Your task to perform on an android device: Open CNN.com Image 0: 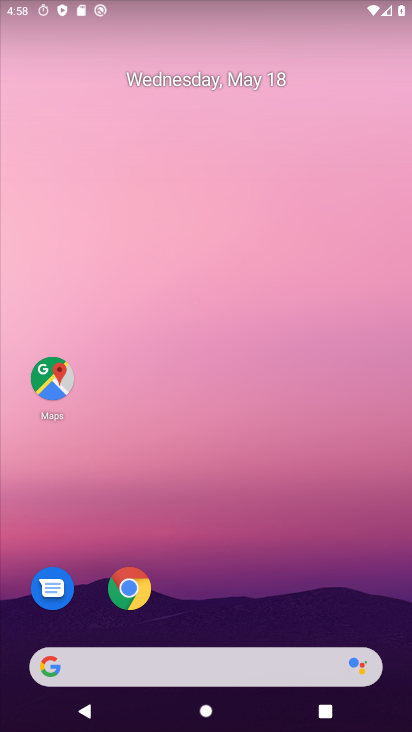
Step 0: click (113, 584)
Your task to perform on an android device: Open CNN.com Image 1: 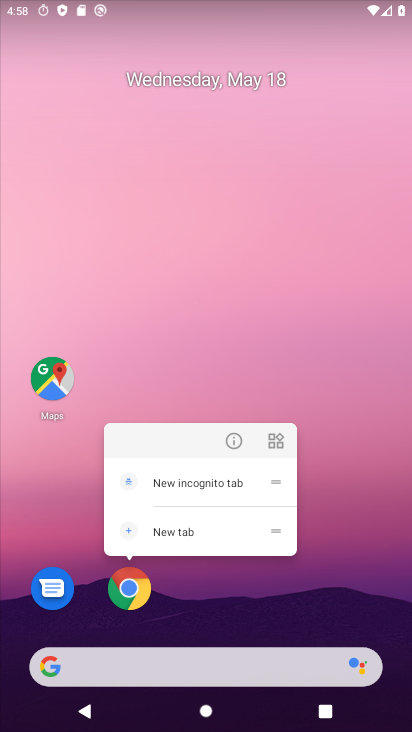
Step 1: click (136, 584)
Your task to perform on an android device: Open CNN.com Image 2: 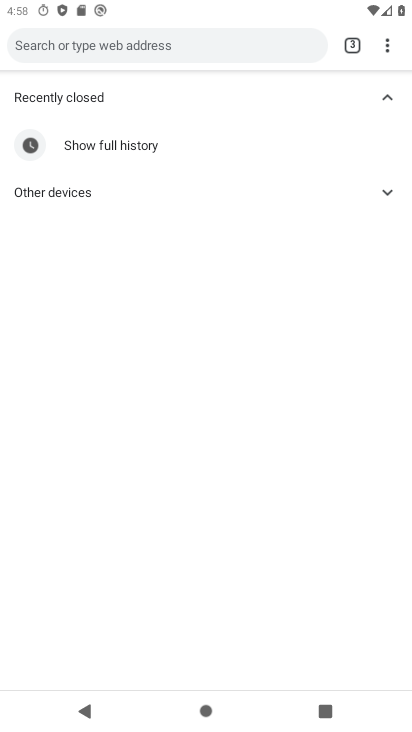
Step 2: click (153, 45)
Your task to perform on an android device: Open CNN.com Image 3: 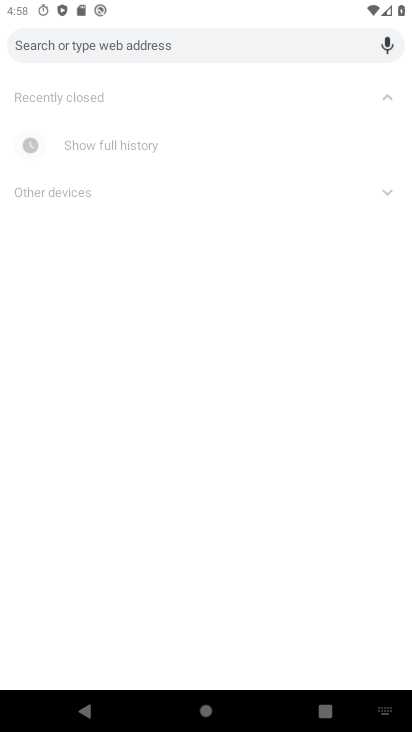
Step 3: type " CNN.com"
Your task to perform on an android device: Open CNN.com Image 4: 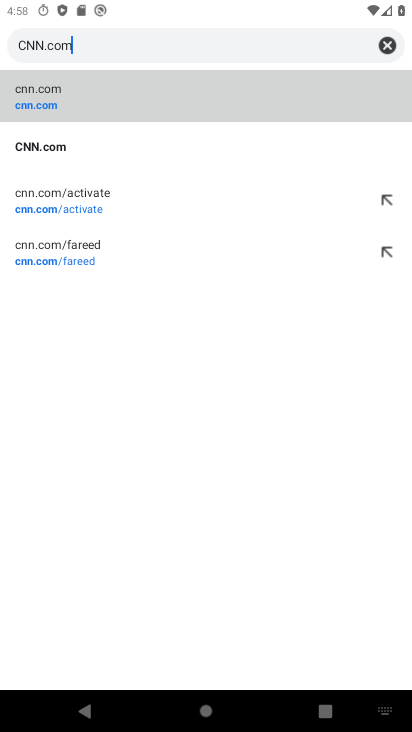
Step 4: click (49, 107)
Your task to perform on an android device: Open CNN.com Image 5: 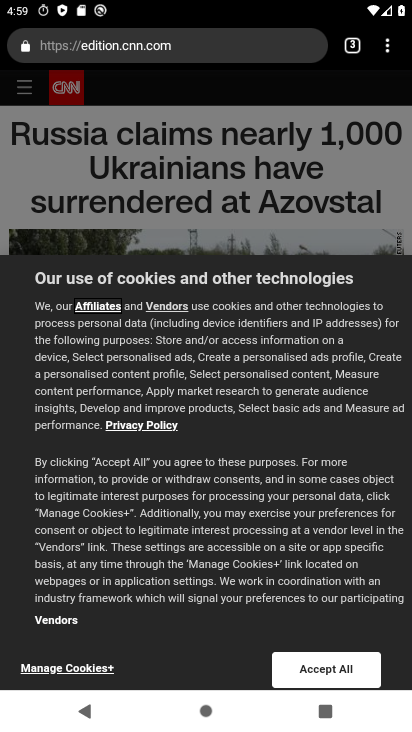
Step 5: task complete